Your task to perform on an android device: see creations saved in the google photos Image 0: 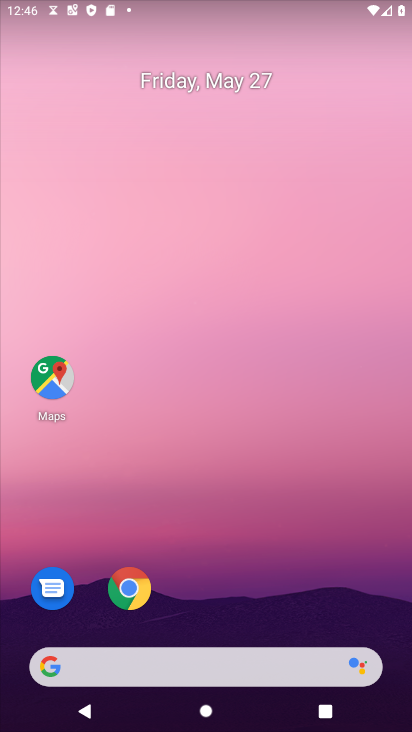
Step 0: press home button
Your task to perform on an android device: see creations saved in the google photos Image 1: 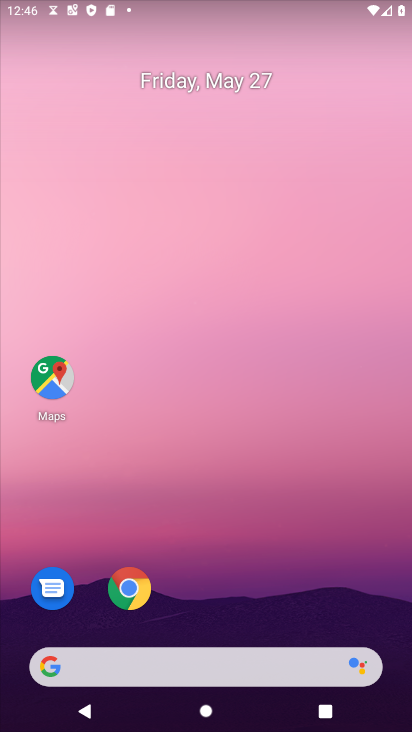
Step 1: drag from (204, 610) to (226, 90)
Your task to perform on an android device: see creations saved in the google photos Image 2: 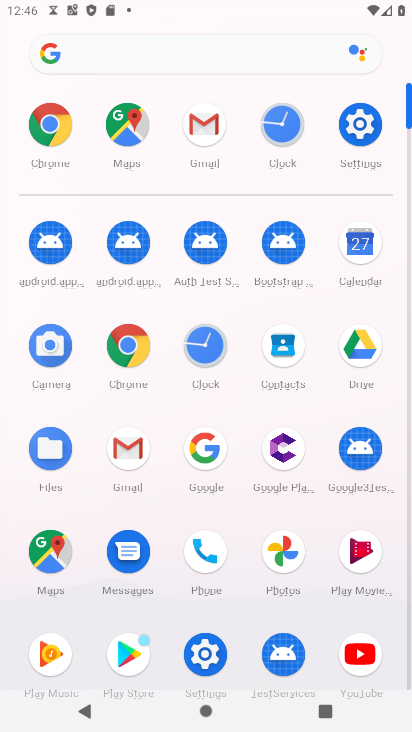
Step 2: click (283, 565)
Your task to perform on an android device: see creations saved in the google photos Image 3: 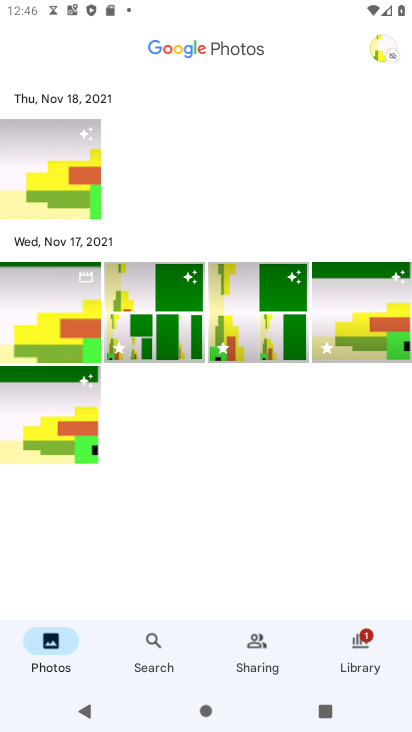
Step 3: click (153, 635)
Your task to perform on an android device: see creations saved in the google photos Image 4: 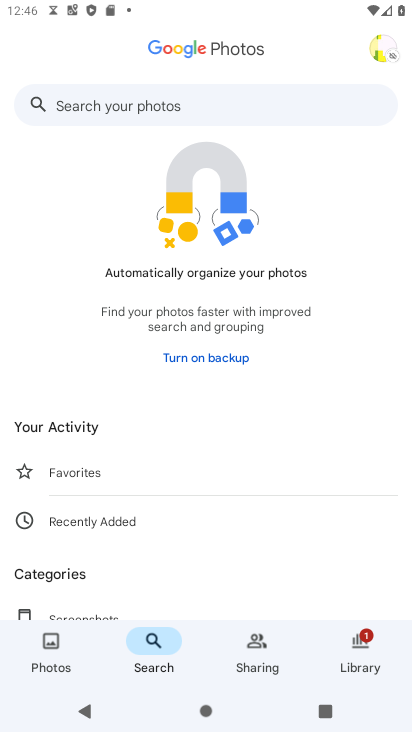
Step 4: drag from (161, 552) to (193, 165)
Your task to perform on an android device: see creations saved in the google photos Image 5: 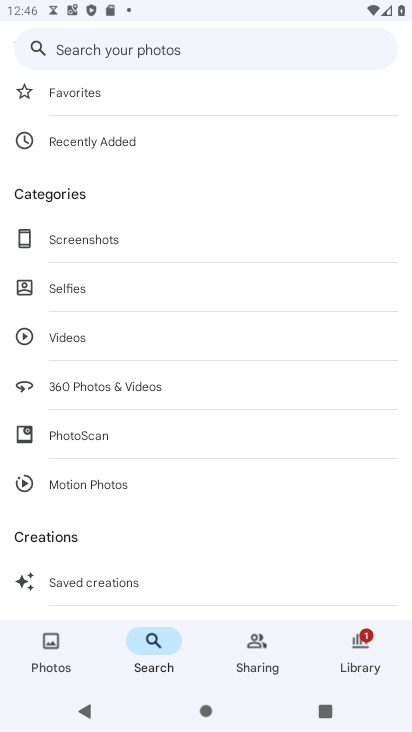
Step 5: click (146, 578)
Your task to perform on an android device: see creations saved in the google photos Image 6: 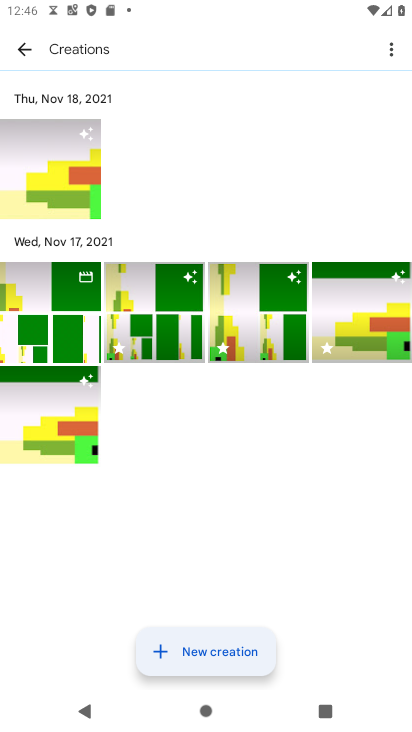
Step 6: task complete